Your task to perform on an android device: set default search engine in the chrome app Image 0: 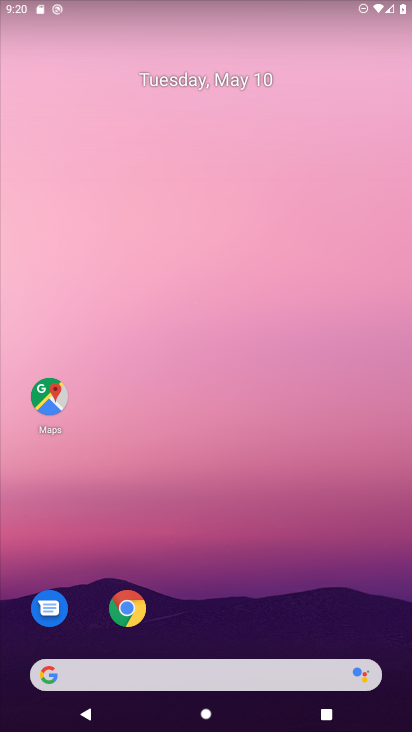
Step 0: drag from (366, 621) to (259, 26)
Your task to perform on an android device: set default search engine in the chrome app Image 1: 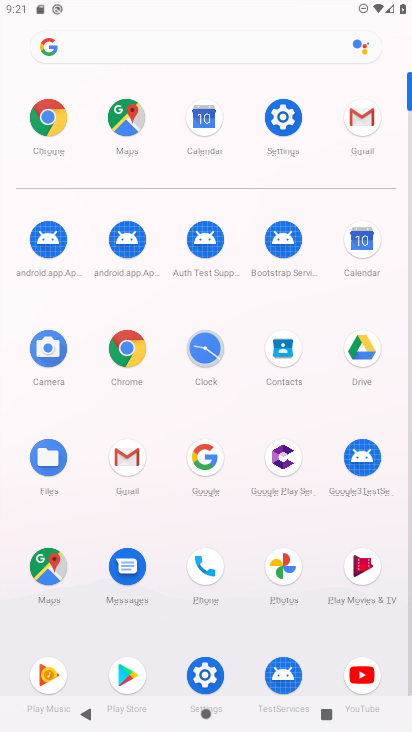
Step 1: click (128, 356)
Your task to perform on an android device: set default search engine in the chrome app Image 2: 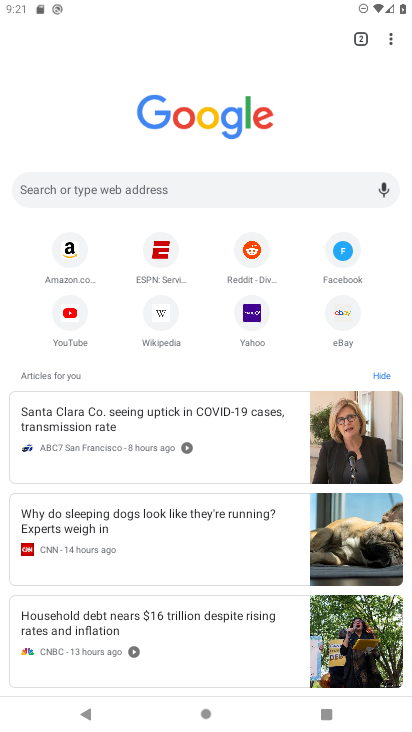
Step 2: click (391, 36)
Your task to perform on an android device: set default search engine in the chrome app Image 3: 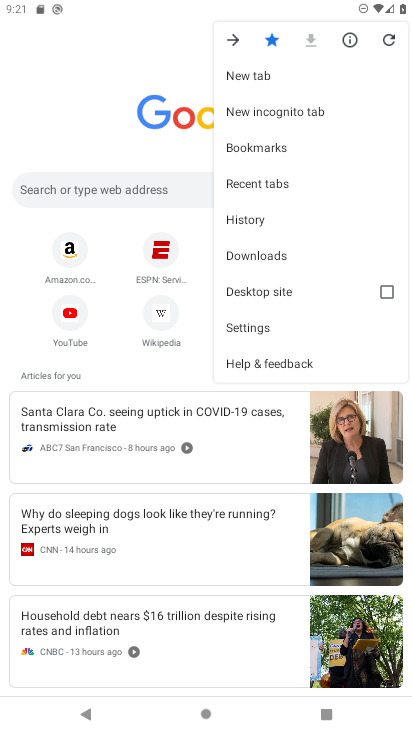
Step 3: click (254, 323)
Your task to perform on an android device: set default search engine in the chrome app Image 4: 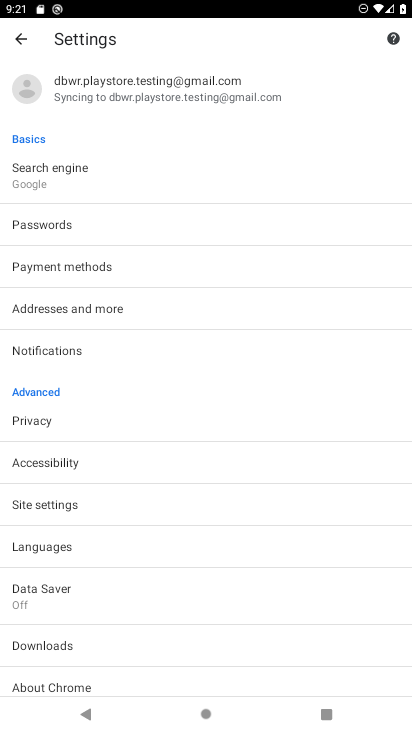
Step 4: click (94, 188)
Your task to perform on an android device: set default search engine in the chrome app Image 5: 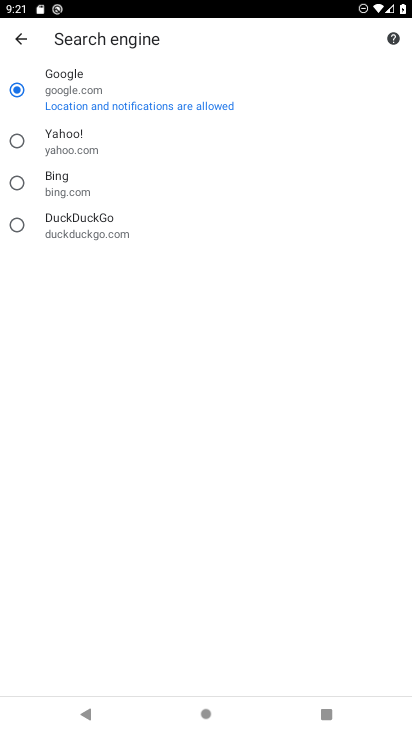
Step 5: click (90, 149)
Your task to perform on an android device: set default search engine in the chrome app Image 6: 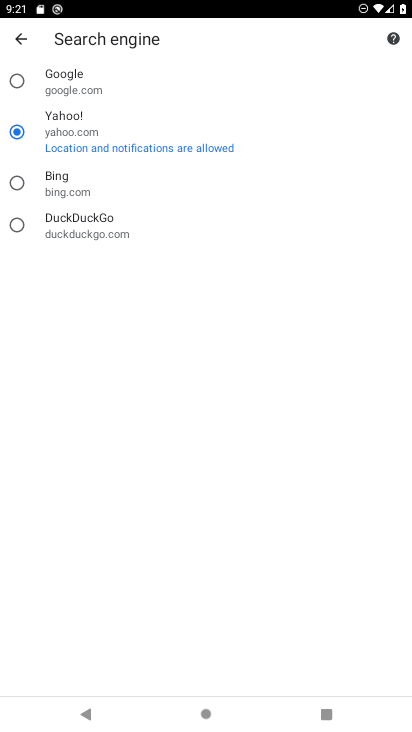
Step 6: task complete